Your task to perform on an android device: see creations saved in the google photos Image 0: 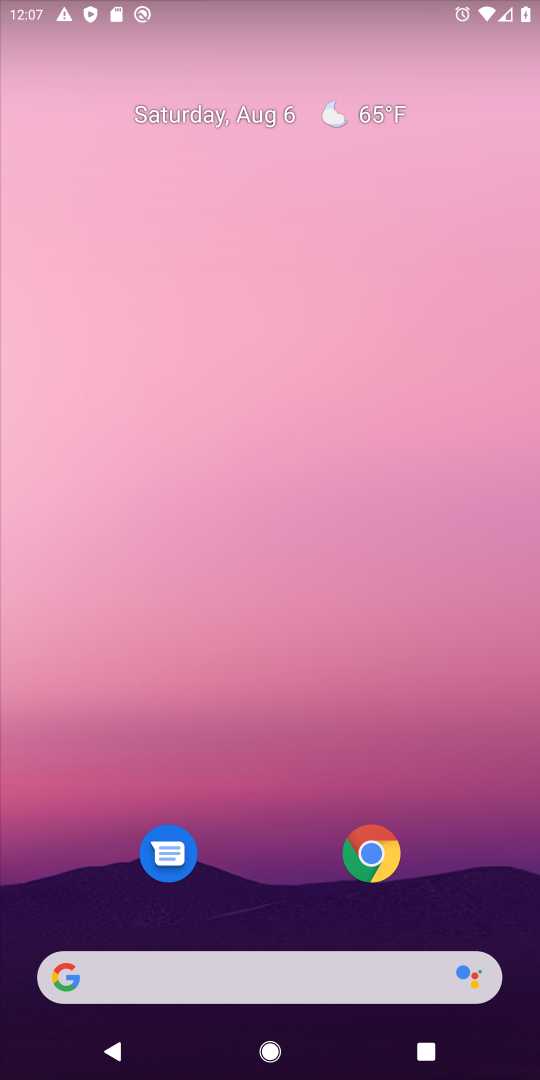
Step 0: press home button
Your task to perform on an android device: see creations saved in the google photos Image 1: 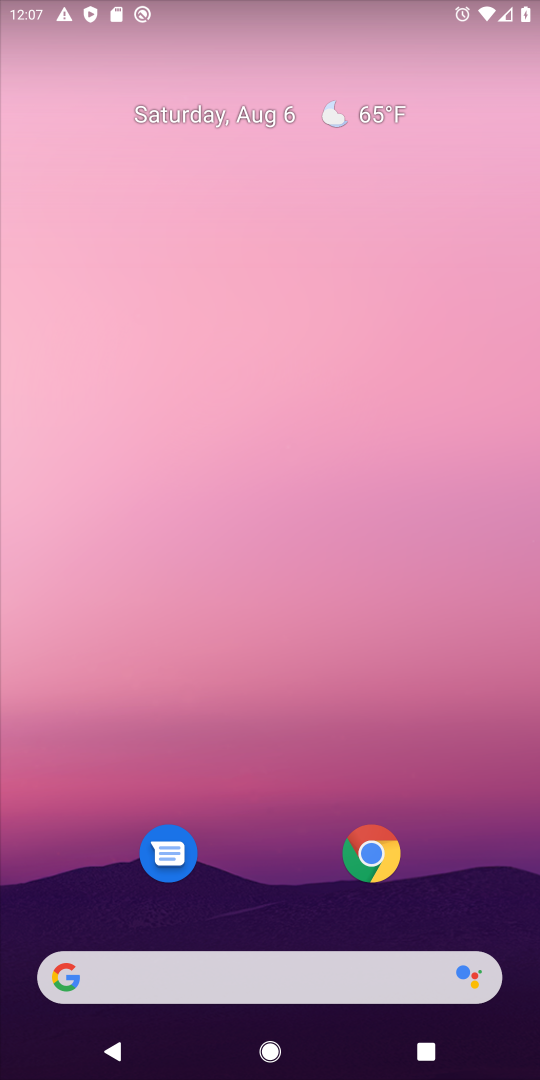
Step 1: drag from (297, 947) to (343, 244)
Your task to perform on an android device: see creations saved in the google photos Image 2: 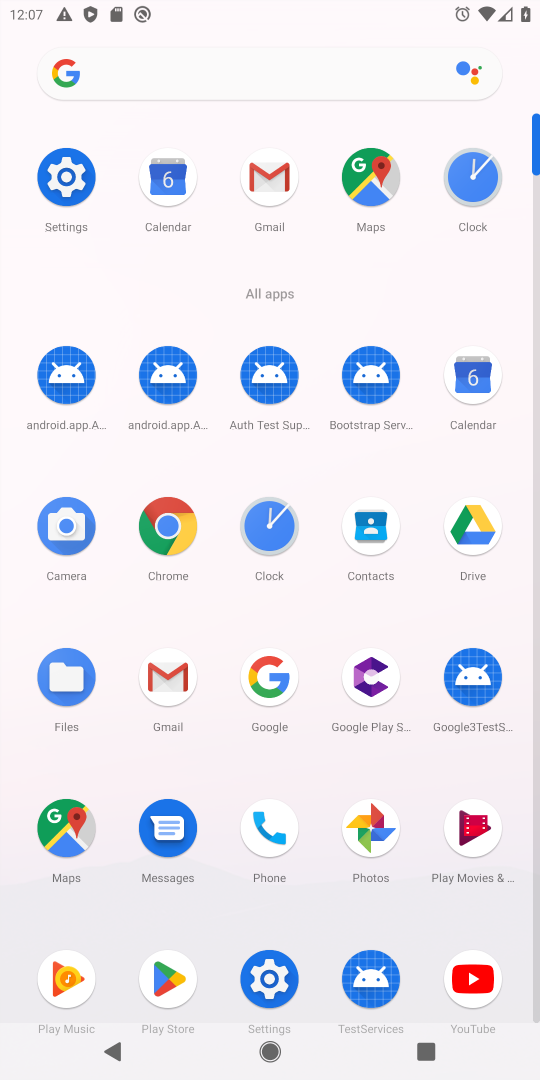
Step 2: click (374, 830)
Your task to perform on an android device: see creations saved in the google photos Image 3: 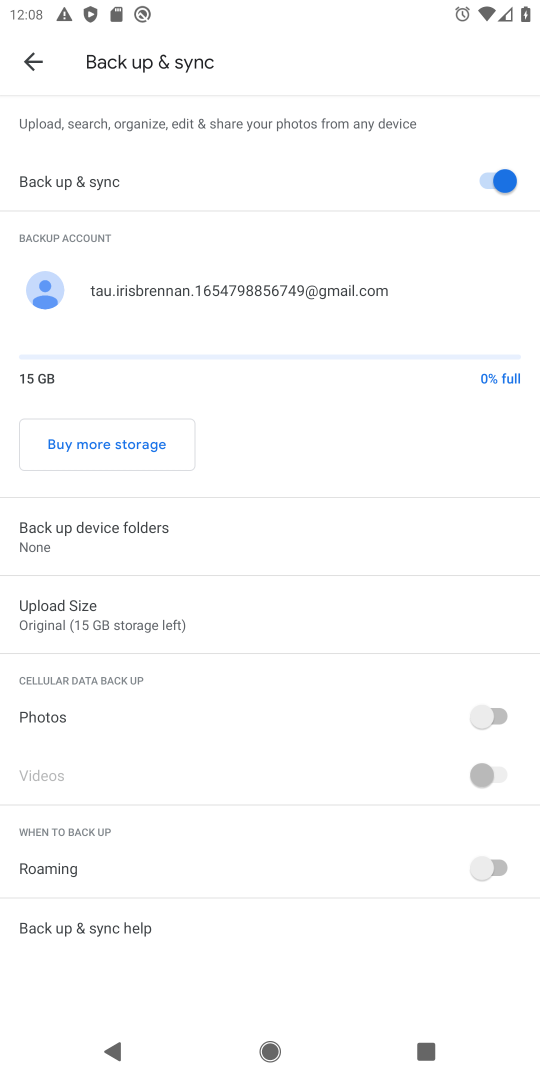
Step 3: click (27, 56)
Your task to perform on an android device: see creations saved in the google photos Image 4: 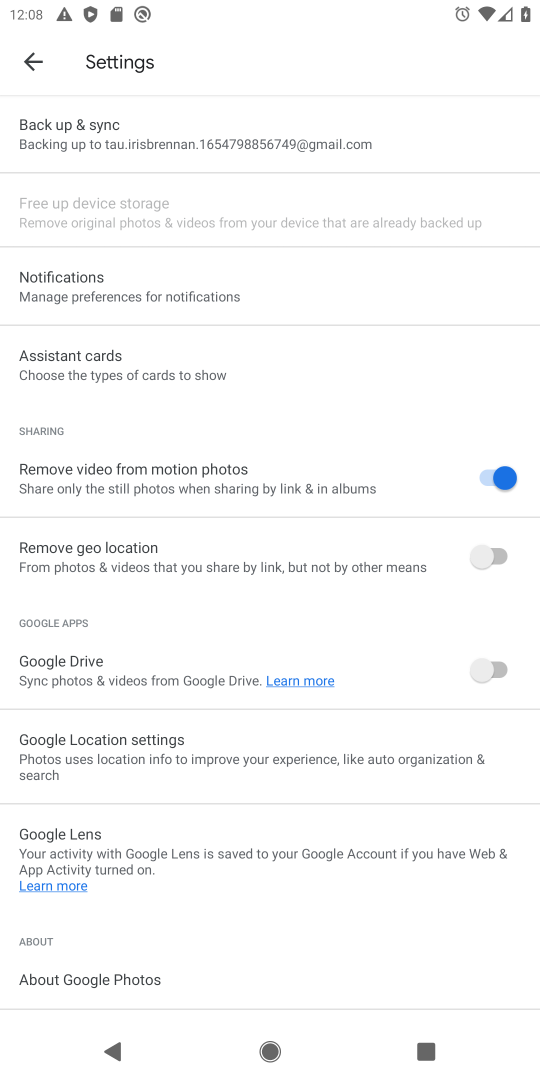
Step 4: click (41, 50)
Your task to perform on an android device: see creations saved in the google photos Image 5: 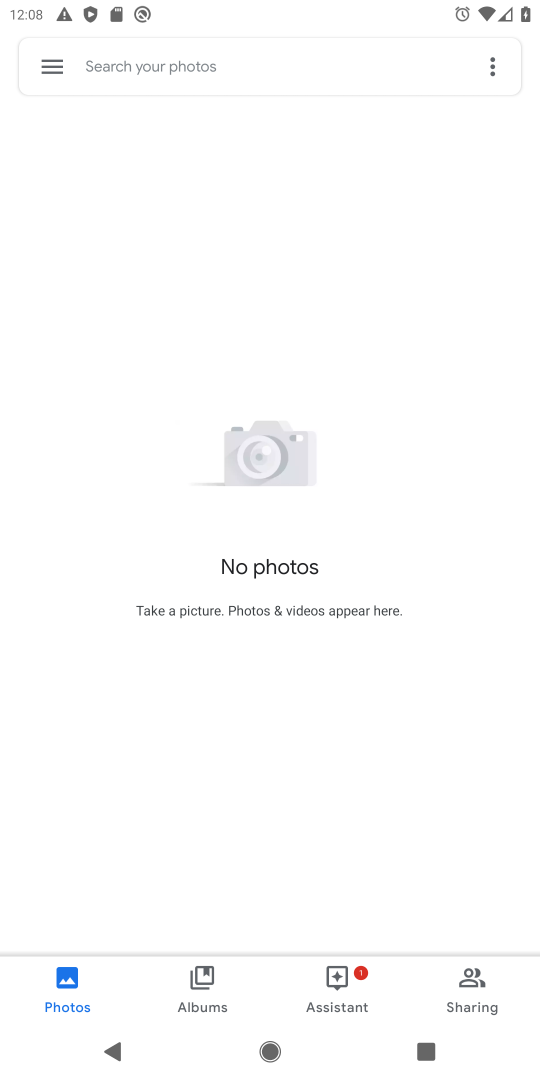
Step 5: click (38, 67)
Your task to perform on an android device: see creations saved in the google photos Image 6: 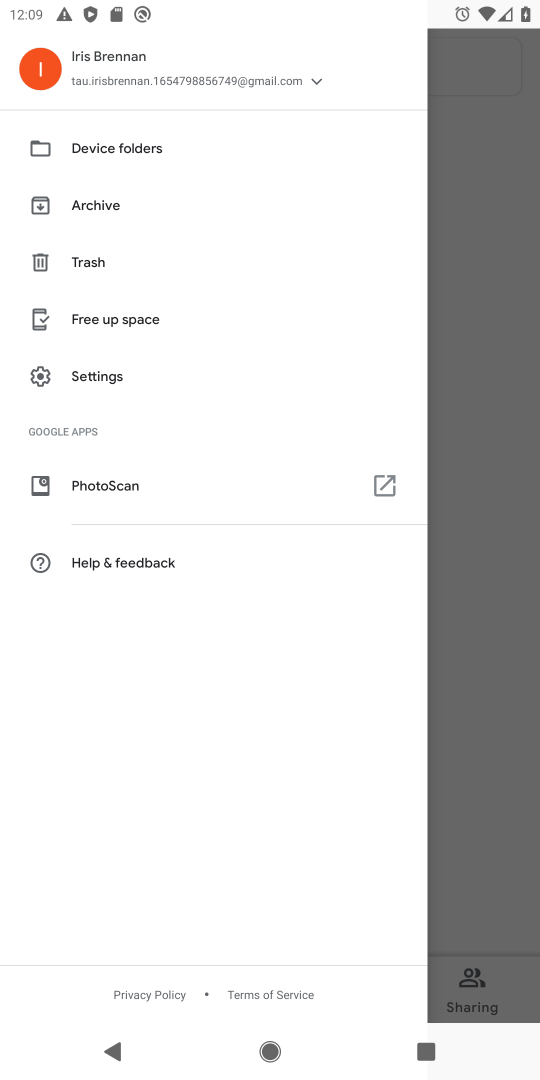
Step 6: click (514, 536)
Your task to perform on an android device: see creations saved in the google photos Image 7: 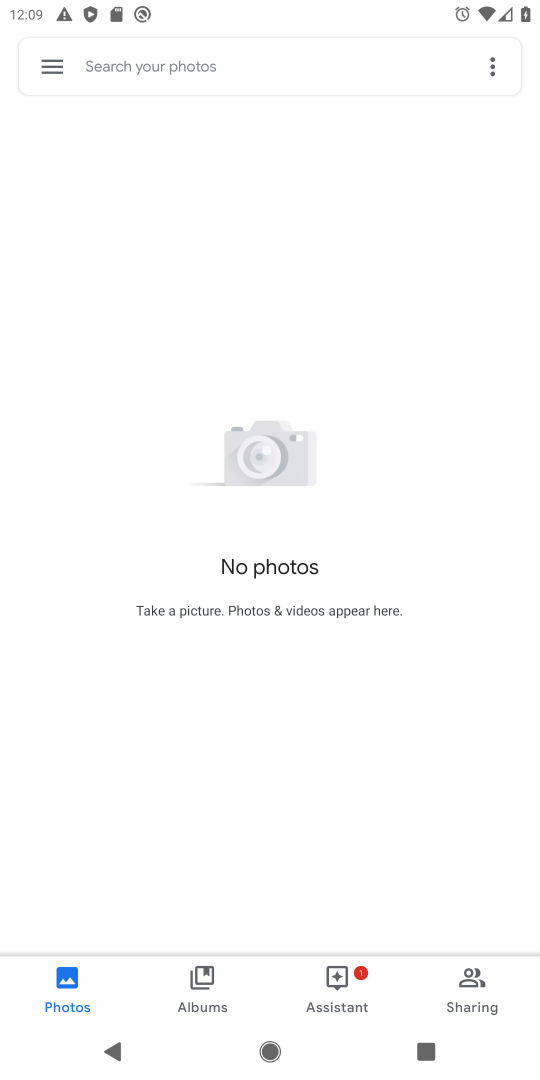
Step 7: click (343, 985)
Your task to perform on an android device: see creations saved in the google photos Image 8: 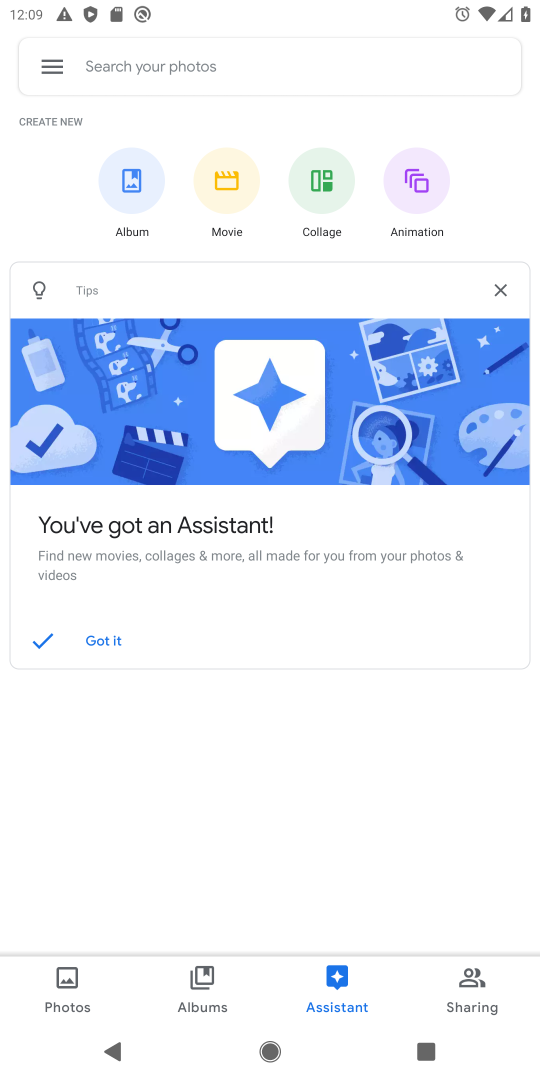
Step 8: task complete